Your task to perform on an android device: Go to network settings Image 0: 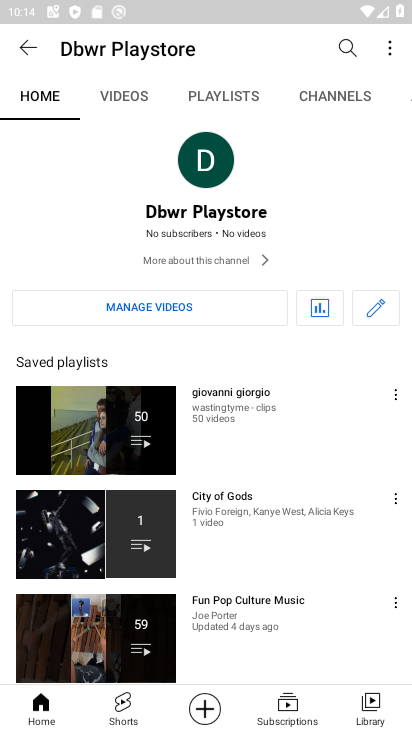
Step 0: press home button
Your task to perform on an android device: Go to network settings Image 1: 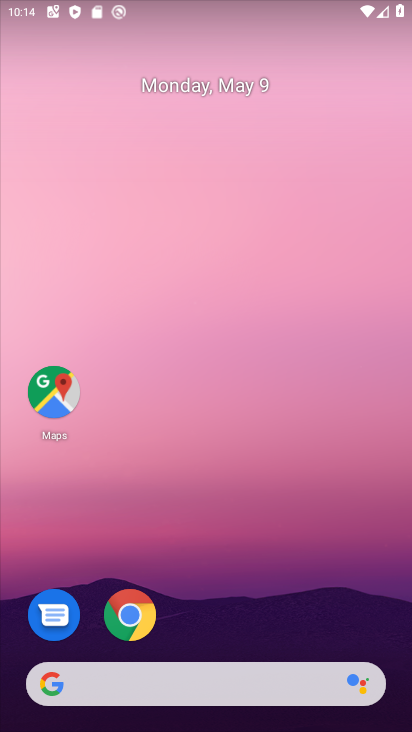
Step 1: drag from (343, 625) to (361, 139)
Your task to perform on an android device: Go to network settings Image 2: 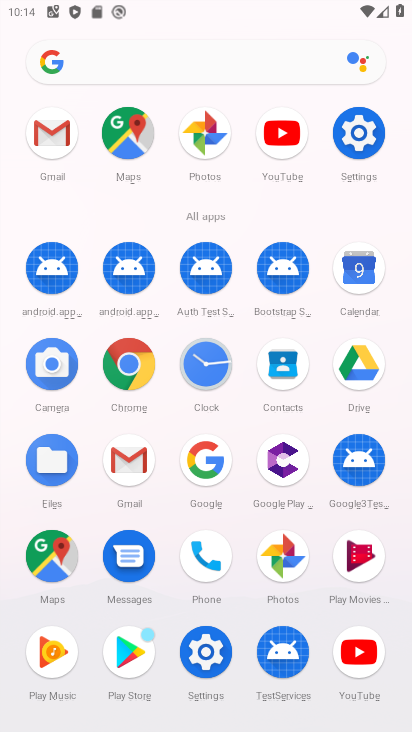
Step 2: click (355, 139)
Your task to perform on an android device: Go to network settings Image 3: 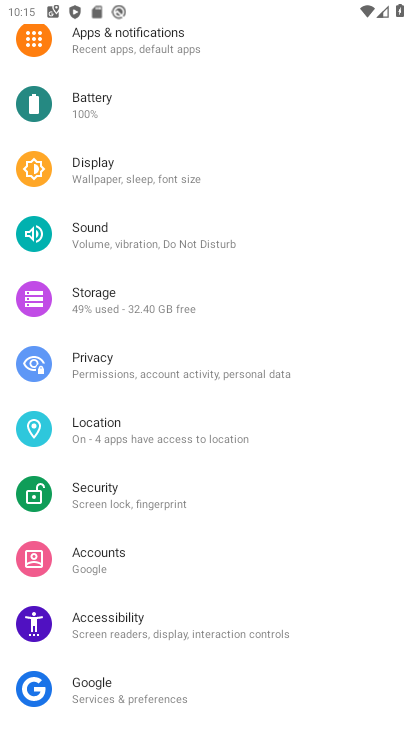
Step 3: drag from (147, 130) to (138, 591)
Your task to perform on an android device: Go to network settings Image 4: 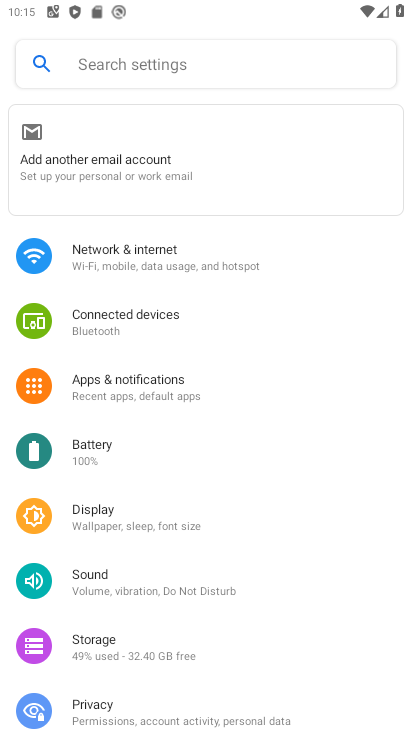
Step 4: click (166, 265)
Your task to perform on an android device: Go to network settings Image 5: 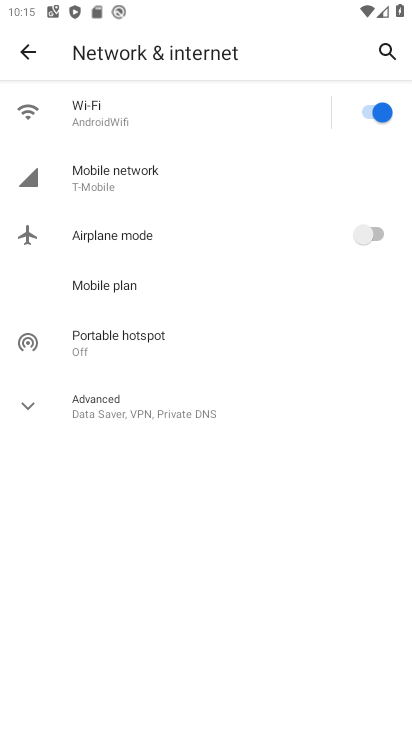
Step 5: task complete